Your task to perform on an android device: turn off priority inbox in the gmail app Image 0: 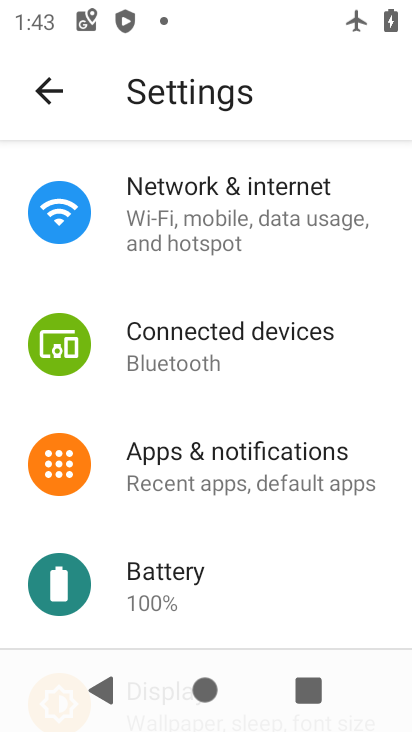
Step 0: press home button
Your task to perform on an android device: turn off priority inbox in the gmail app Image 1: 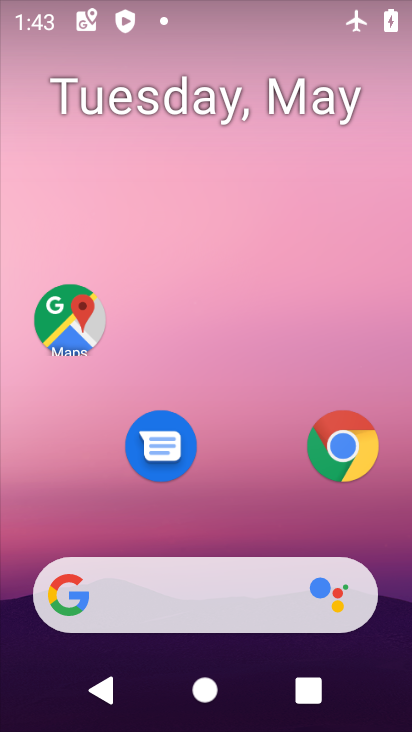
Step 1: drag from (180, 520) to (125, 43)
Your task to perform on an android device: turn off priority inbox in the gmail app Image 2: 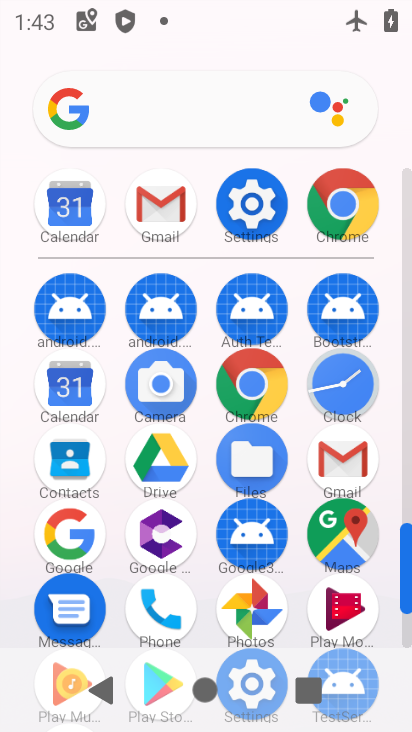
Step 2: click (347, 436)
Your task to perform on an android device: turn off priority inbox in the gmail app Image 3: 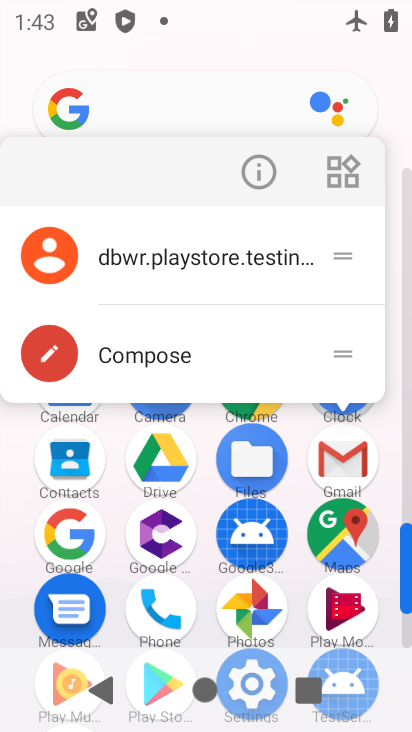
Step 3: click (356, 475)
Your task to perform on an android device: turn off priority inbox in the gmail app Image 4: 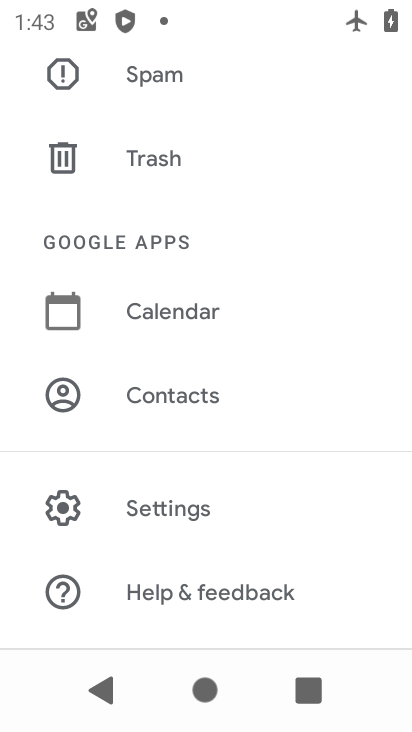
Step 4: click (154, 497)
Your task to perform on an android device: turn off priority inbox in the gmail app Image 5: 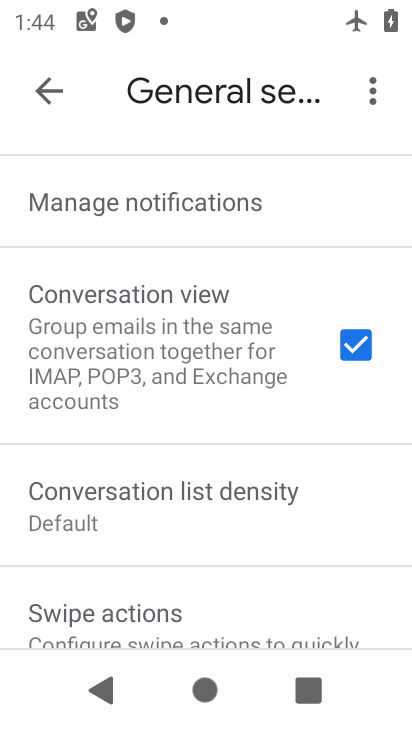
Step 5: drag from (178, 587) to (151, 194)
Your task to perform on an android device: turn off priority inbox in the gmail app Image 6: 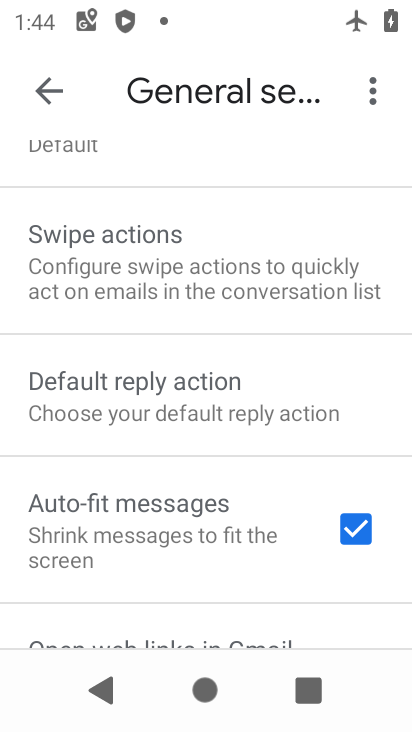
Step 6: click (30, 88)
Your task to perform on an android device: turn off priority inbox in the gmail app Image 7: 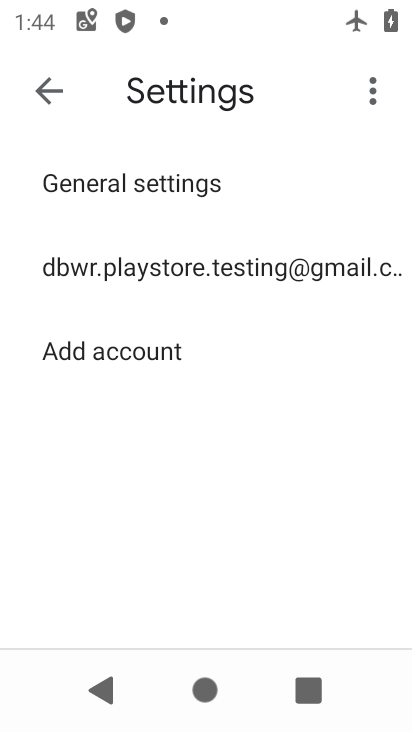
Step 7: click (338, 262)
Your task to perform on an android device: turn off priority inbox in the gmail app Image 8: 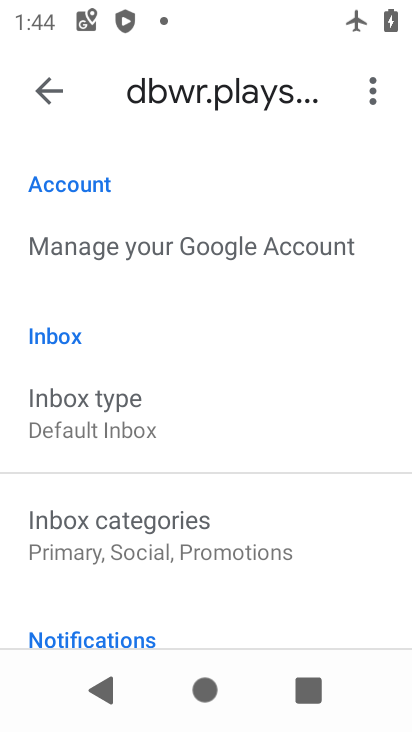
Step 8: click (145, 426)
Your task to perform on an android device: turn off priority inbox in the gmail app Image 9: 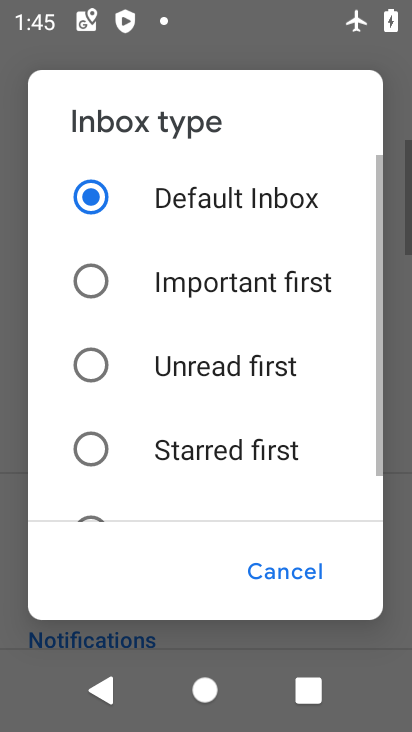
Step 9: task complete